Your task to perform on an android device: What is the news today? Image 0: 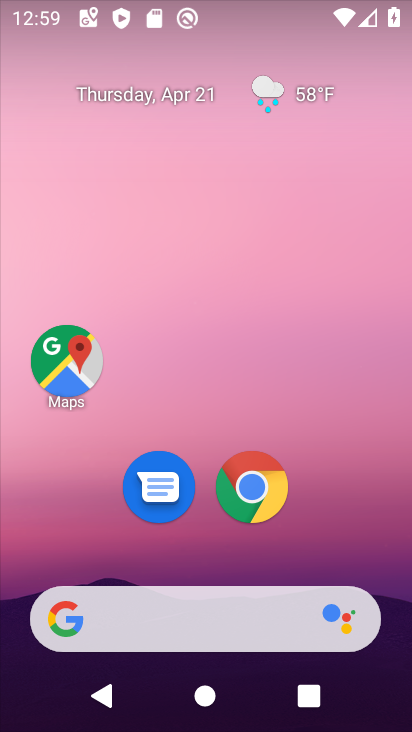
Step 0: drag from (32, 233) to (411, 258)
Your task to perform on an android device: What is the news today? Image 1: 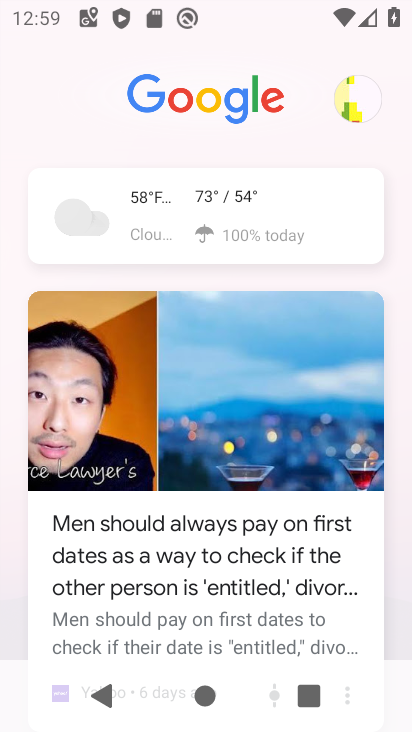
Step 1: task complete